Your task to perform on an android device: toggle data saver in the chrome app Image 0: 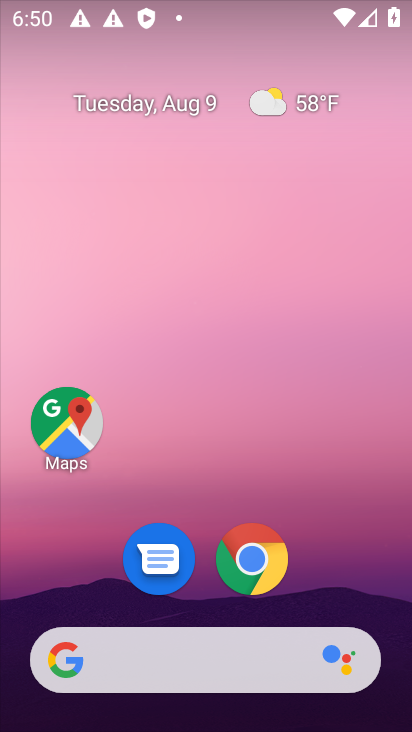
Step 0: click (248, 557)
Your task to perform on an android device: toggle data saver in the chrome app Image 1: 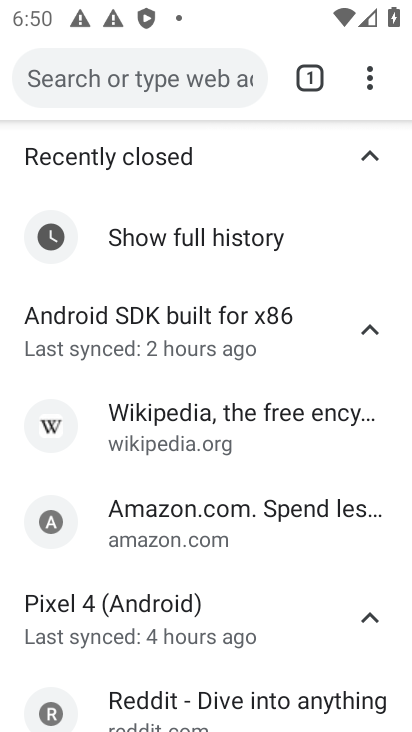
Step 1: click (370, 82)
Your task to perform on an android device: toggle data saver in the chrome app Image 2: 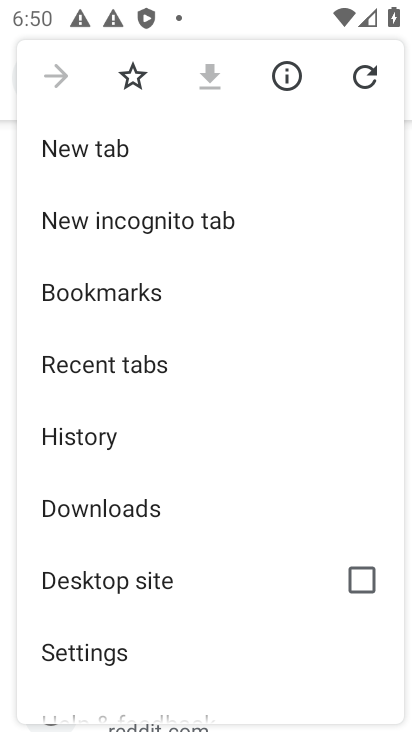
Step 2: click (102, 656)
Your task to perform on an android device: toggle data saver in the chrome app Image 3: 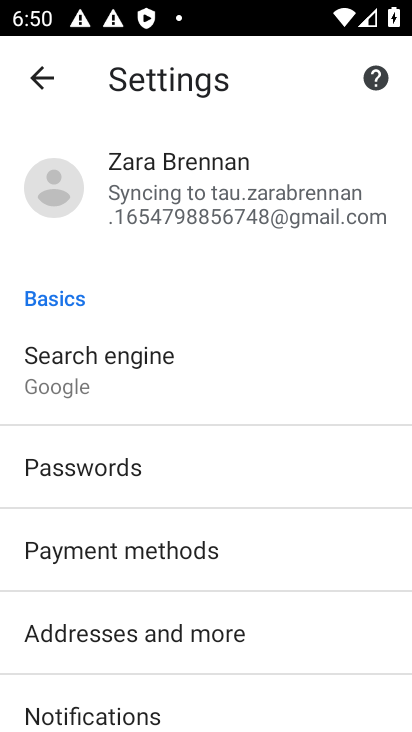
Step 3: drag from (196, 635) to (189, 232)
Your task to perform on an android device: toggle data saver in the chrome app Image 4: 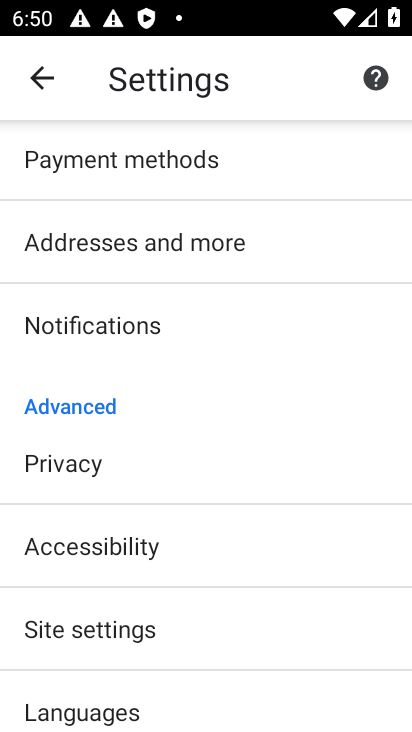
Step 4: drag from (178, 581) to (185, 330)
Your task to perform on an android device: toggle data saver in the chrome app Image 5: 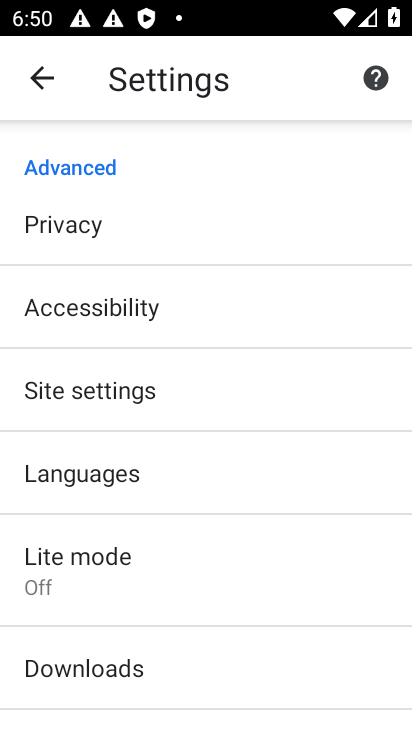
Step 5: click (75, 600)
Your task to perform on an android device: toggle data saver in the chrome app Image 6: 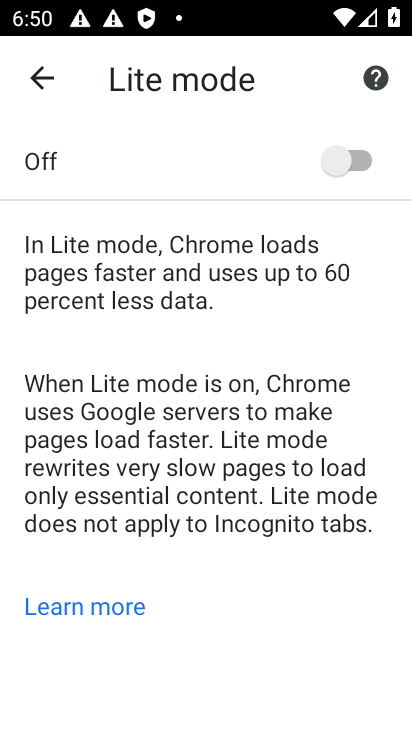
Step 6: click (358, 160)
Your task to perform on an android device: toggle data saver in the chrome app Image 7: 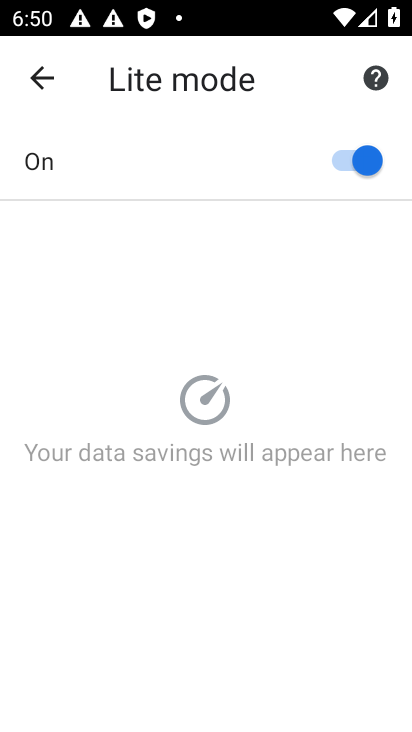
Step 7: task complete